Your task to perform on an android device: toggle data saver in the chrome app Image 0: 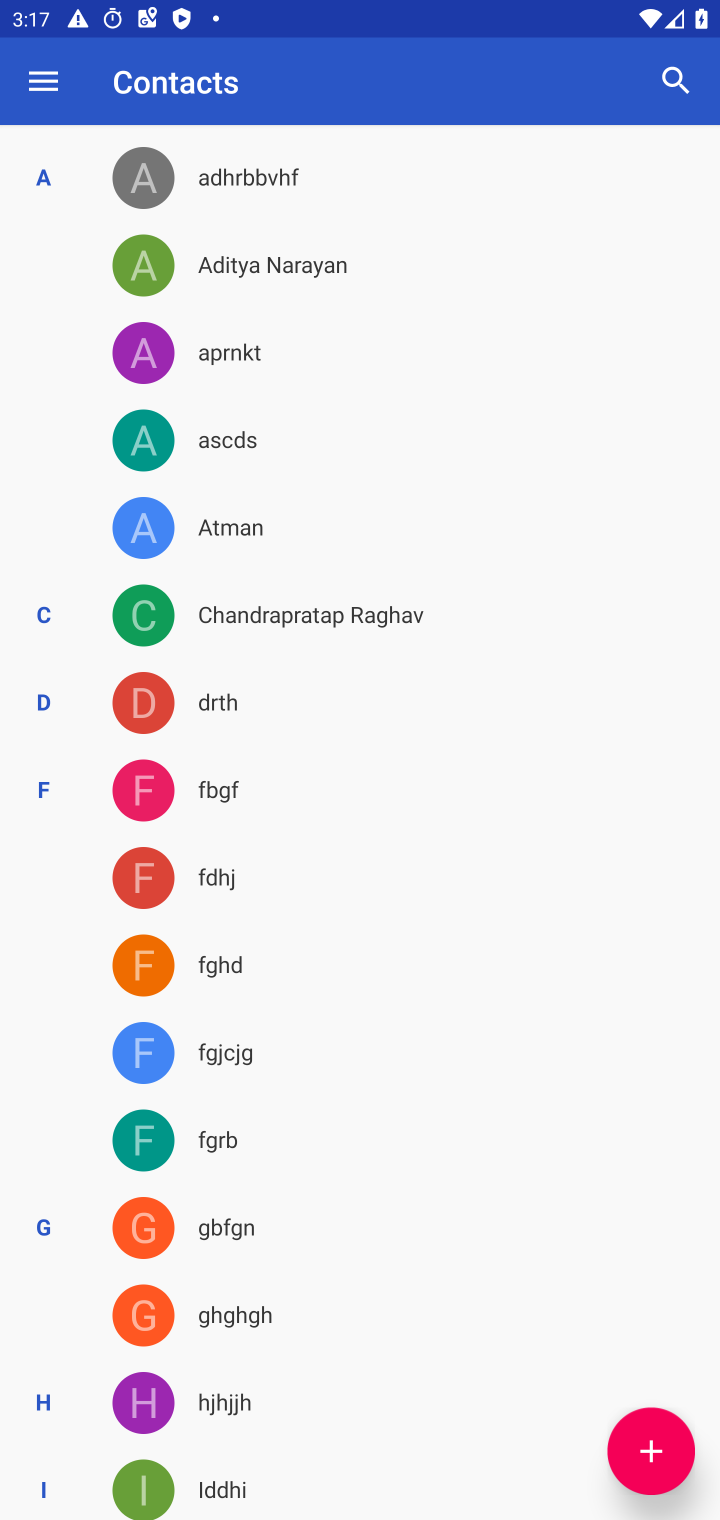
Step 0: press home button
Your task to perform on an android device: toggle data saver in the chrome app Image 1: 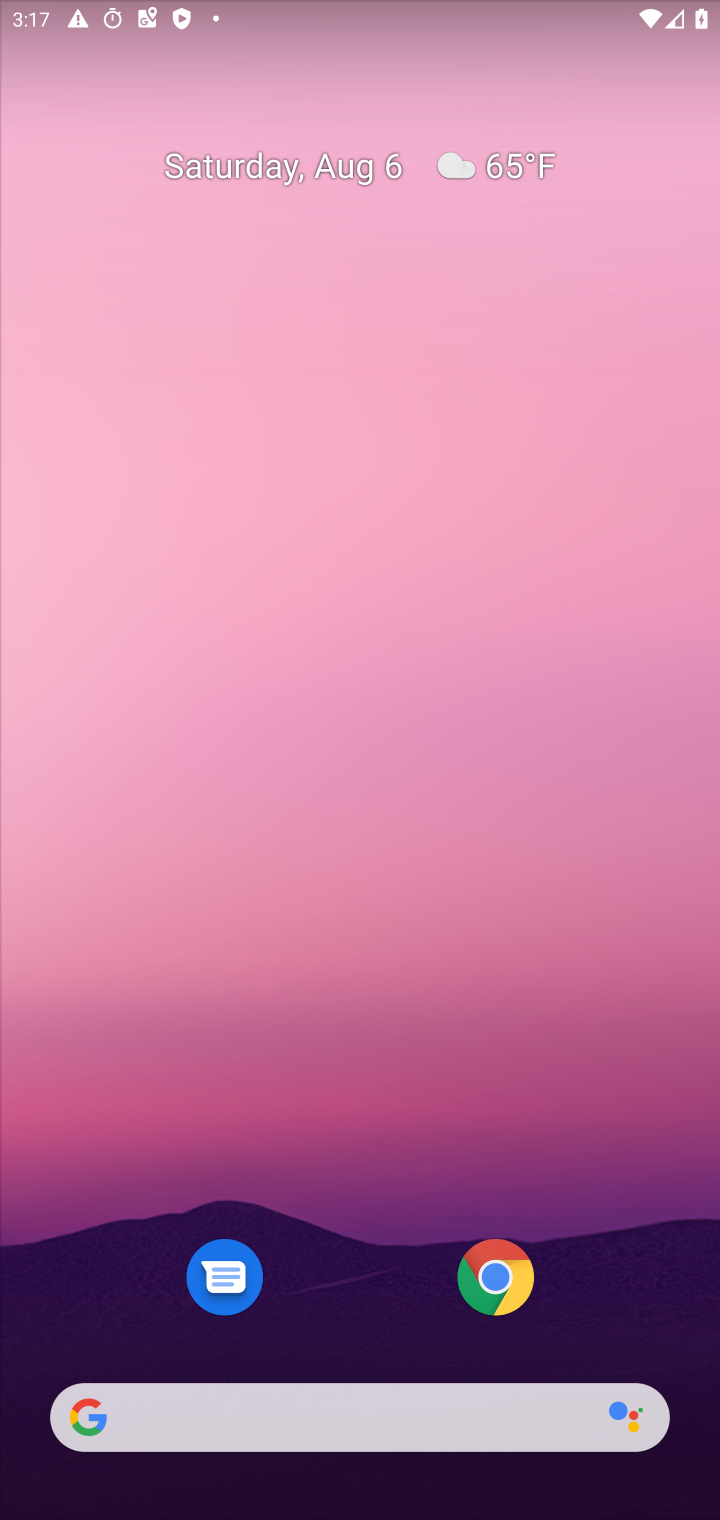
Step 1: drag from (408, 1421) to (416, 676)
Your task to perform on an android device: toggle data saver in the chrome app Image 2: 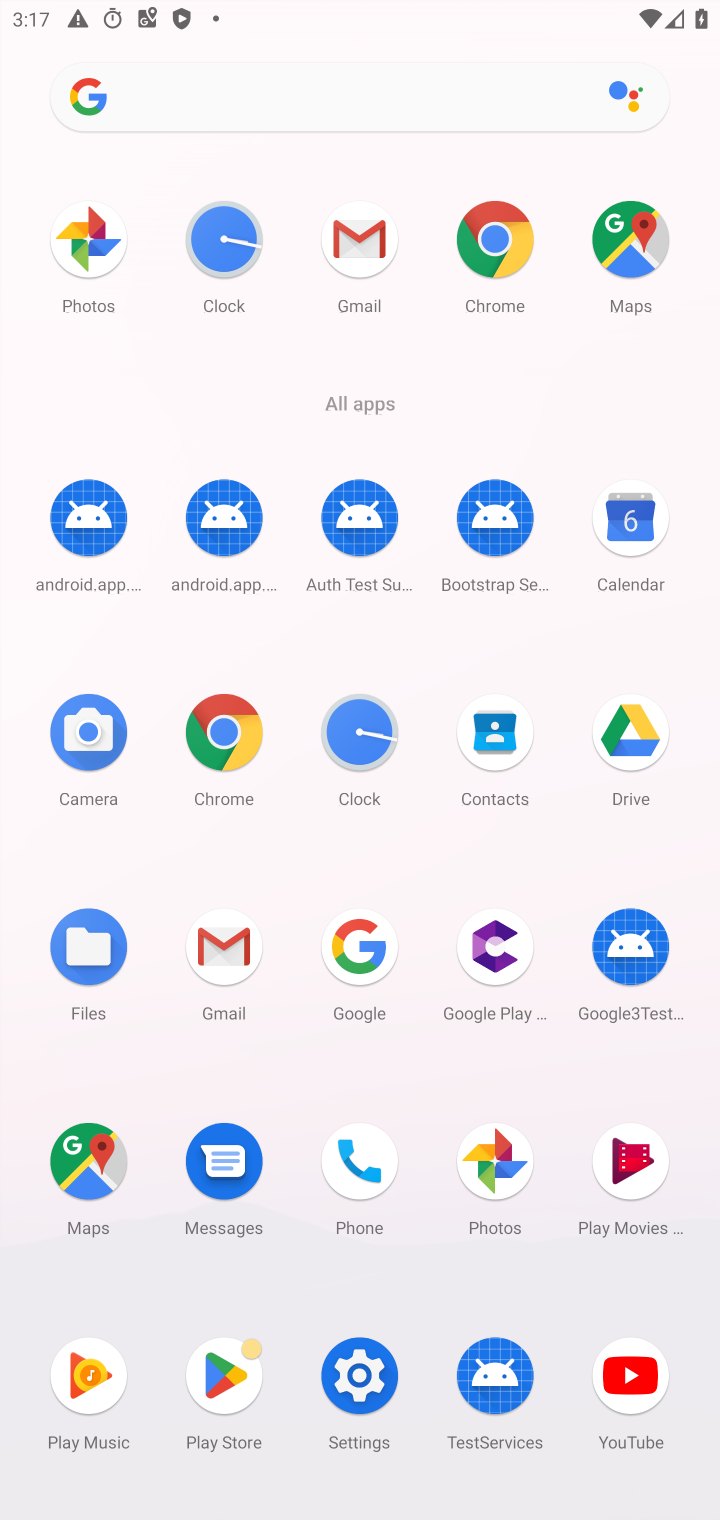
Step 2: click (232, 735)
Your task to perform on an android device: toggle data saver in the chrome app Image 3: 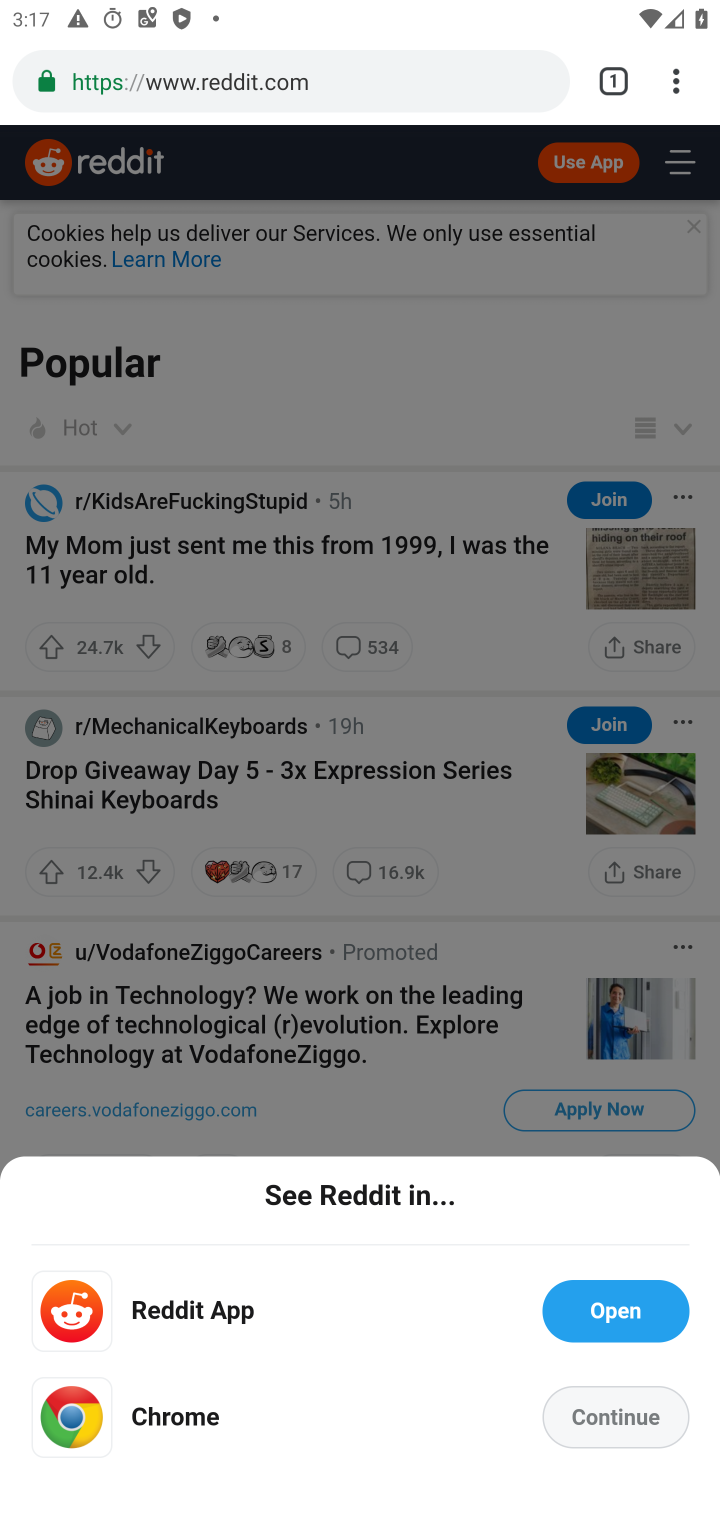
Step 3: click (678, 82)
Your task to perform on an android device: toggle data saver in the chrome app Image 4: 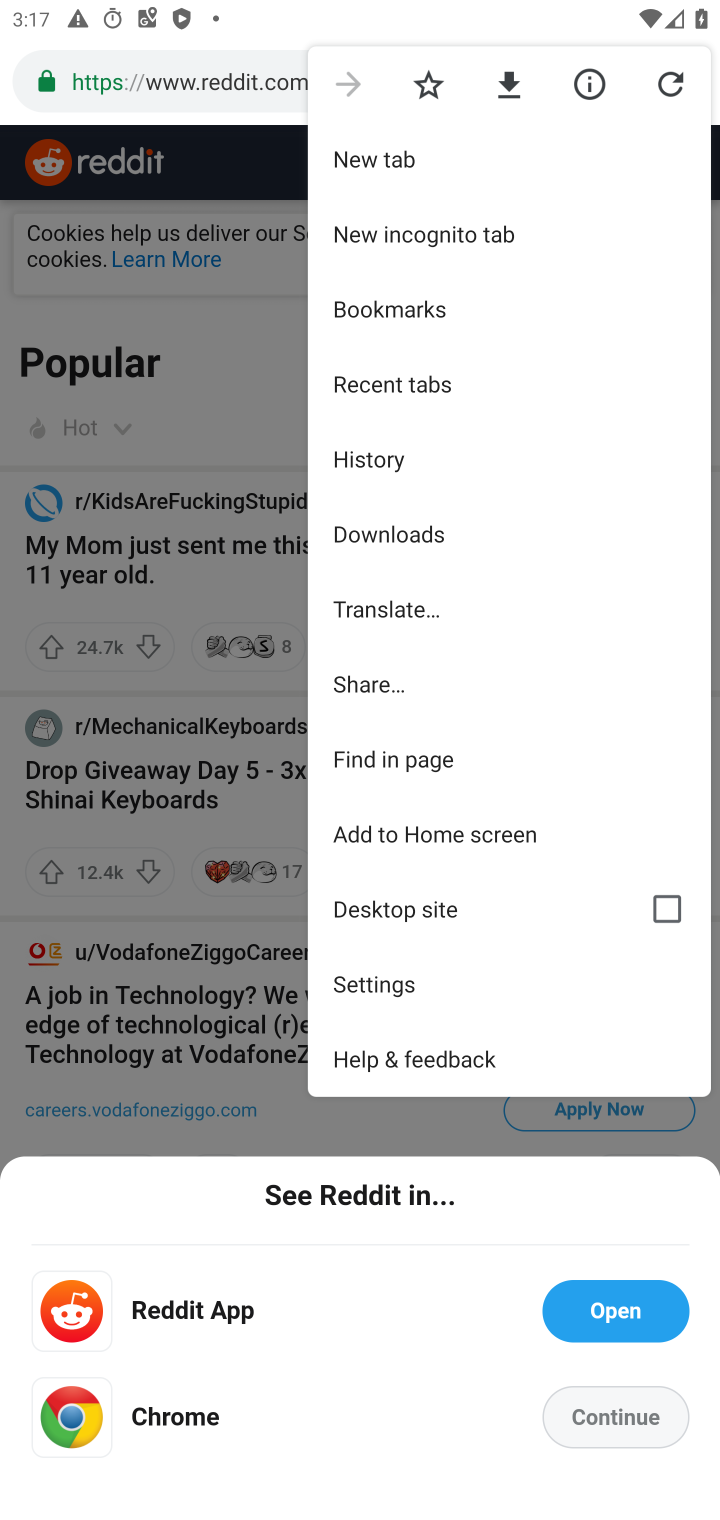
Step 4: click (386, 974)
Your task to perform on an android device: toggle data saver in the chrome app Image 5: 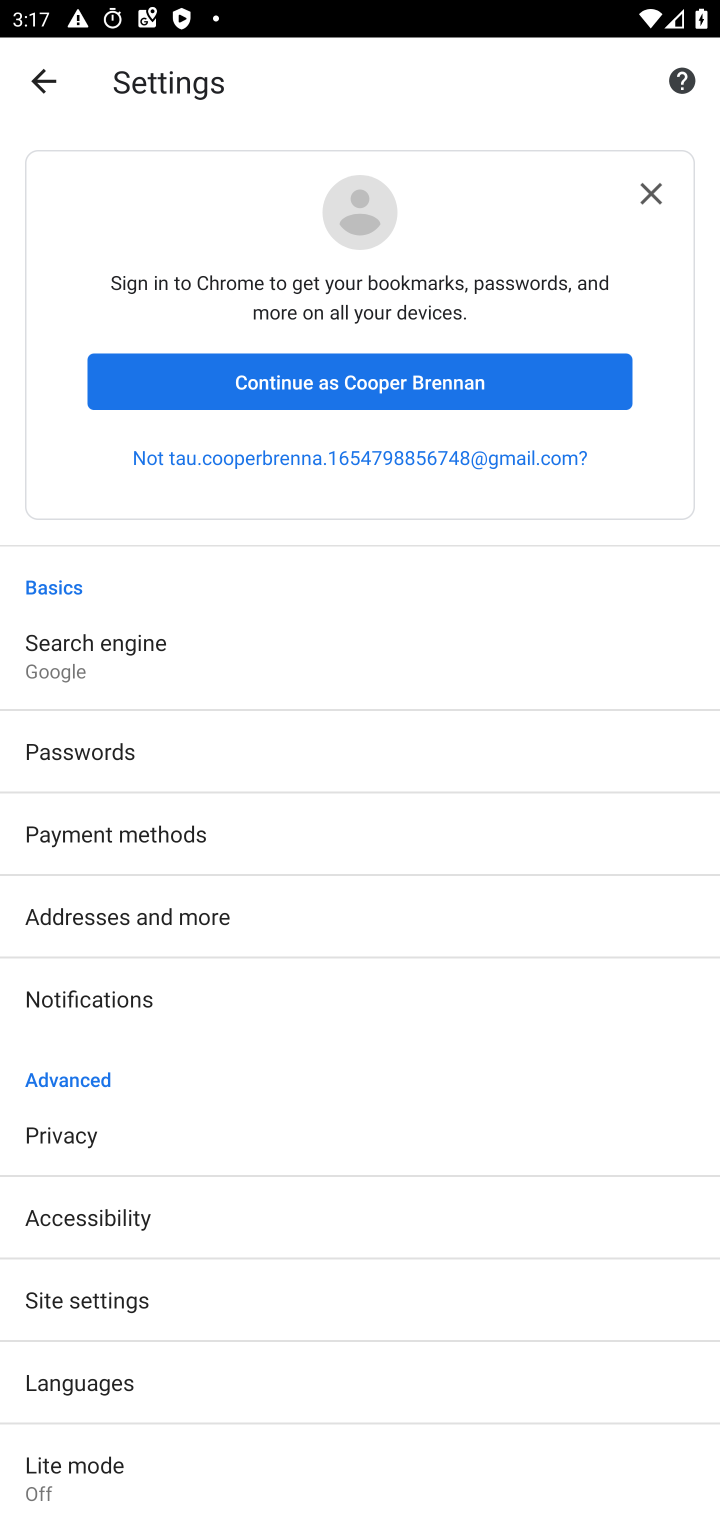
Step 5: click (94, 1464)
Your task to perform on an android device: toggle data saver in the chrome app Image 6: 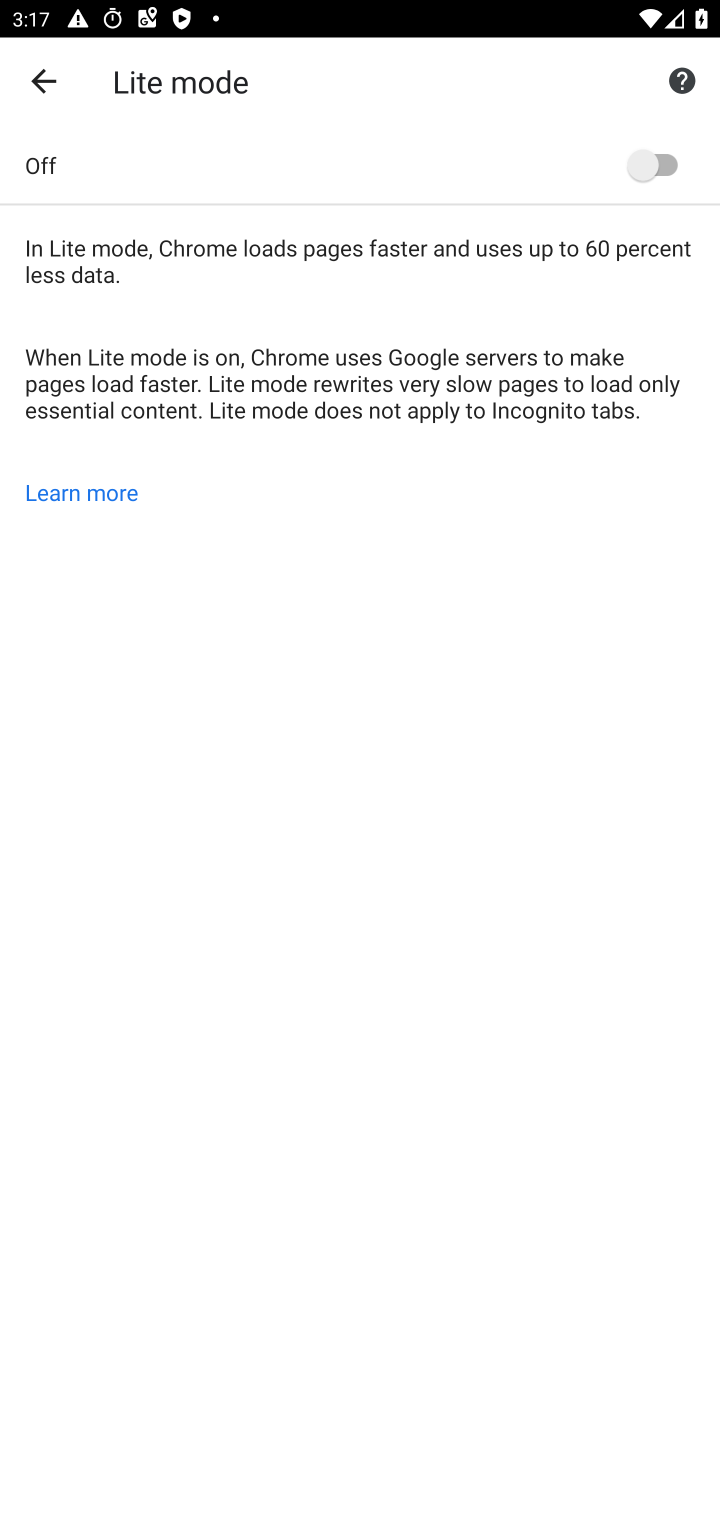
Step 6: click (663, 157)
Your task to perform on an android device: toggle data saver in the chrome app Image 7: 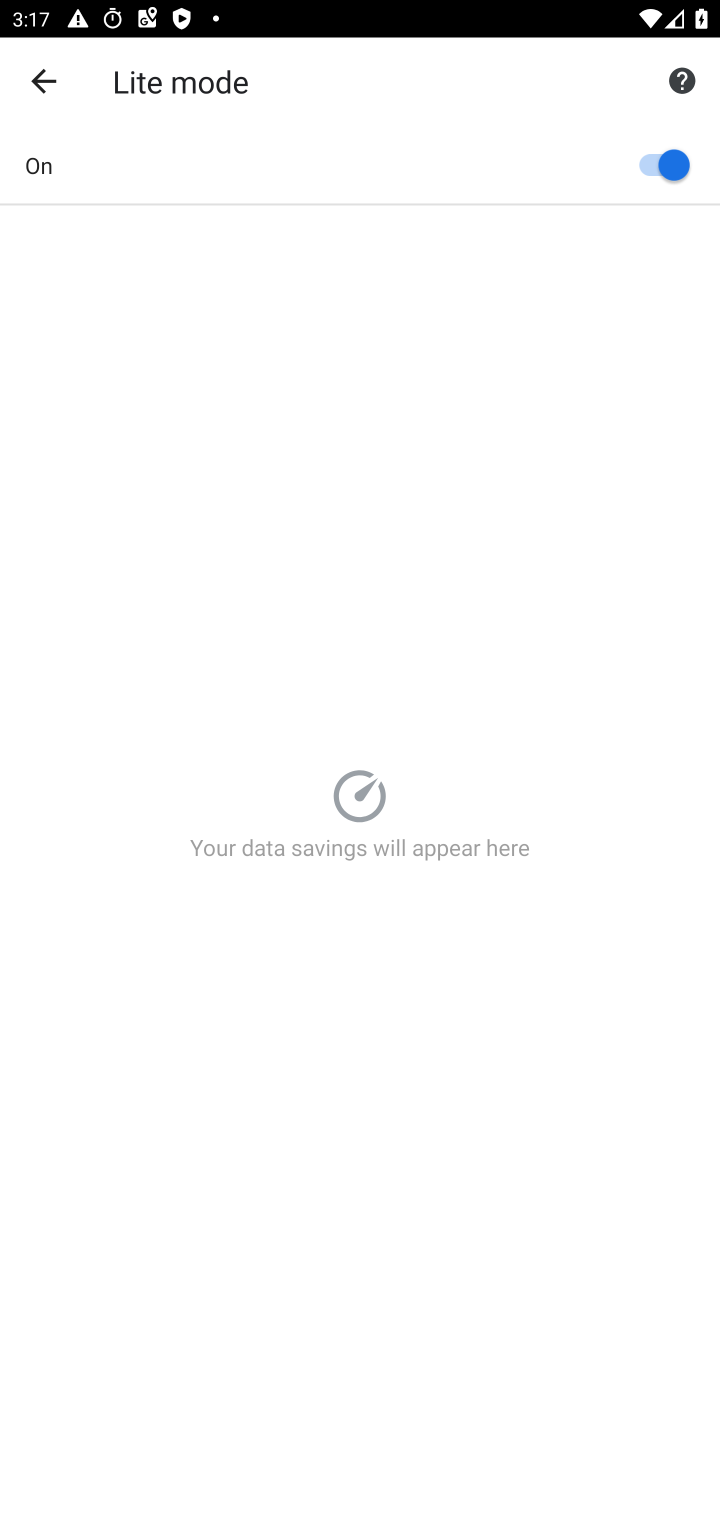
Step 7: task complete